Your task to perform on an android device: delete a single message in the gmail app Image 0: 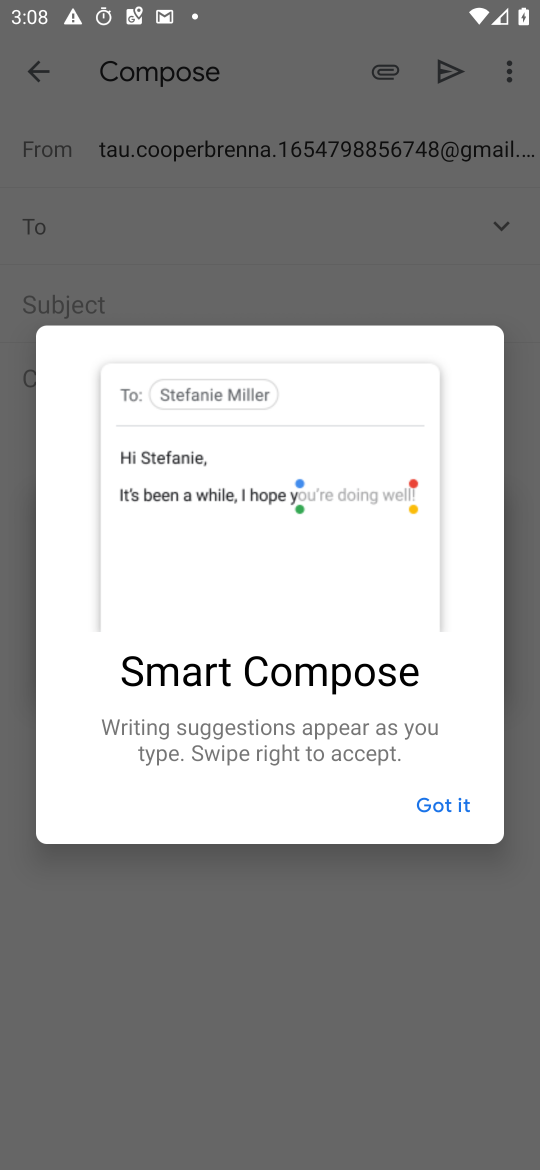
Step 0: press home button
Your task to perform on an android device: delete a single message in the gmail app Image 1: 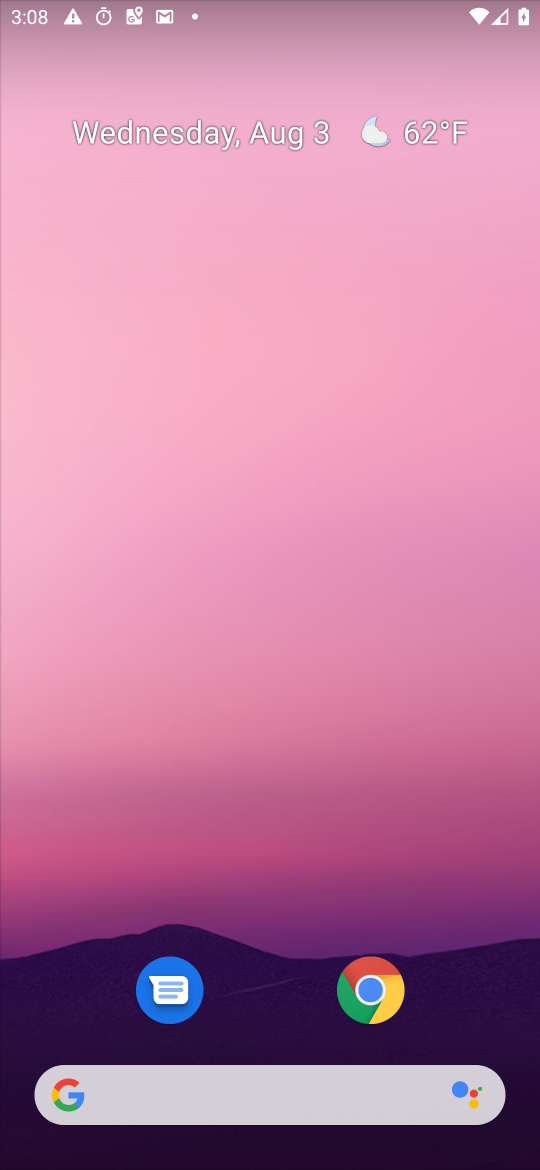
Step 1: drag from (211, 1055) to (224, 431)
Your task to perform on an android device: delete a single message in the gmail app Image 2: 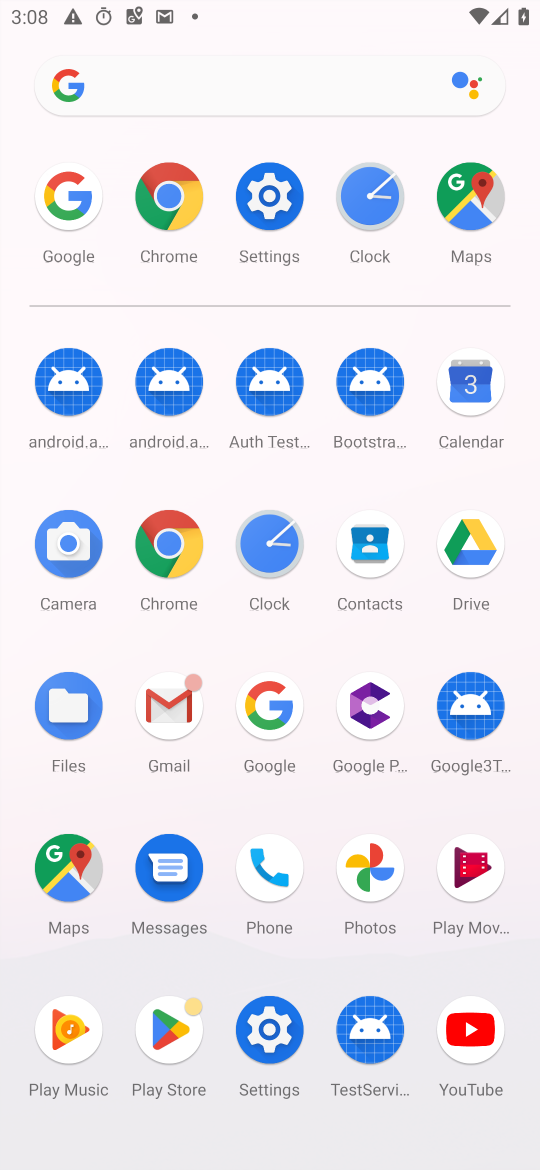
Step 2: click (189, 704)
Your task to perform on an android device: delete a single message in the gmail app Image 3: 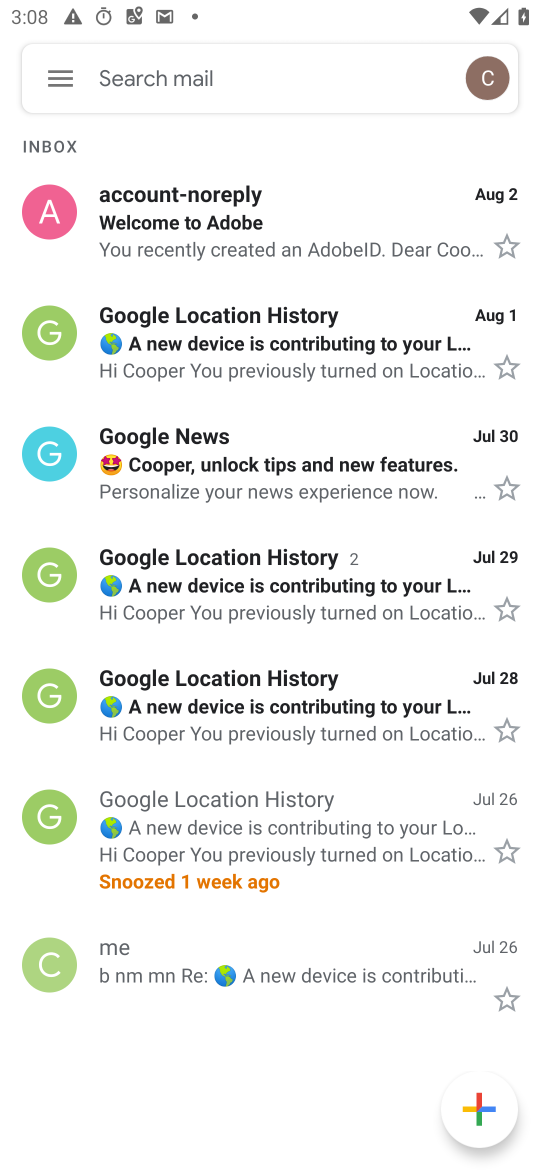
Step 3: click (76, 73)
Your task to perform on an android device: delete a single message in the gmail app Image 4: 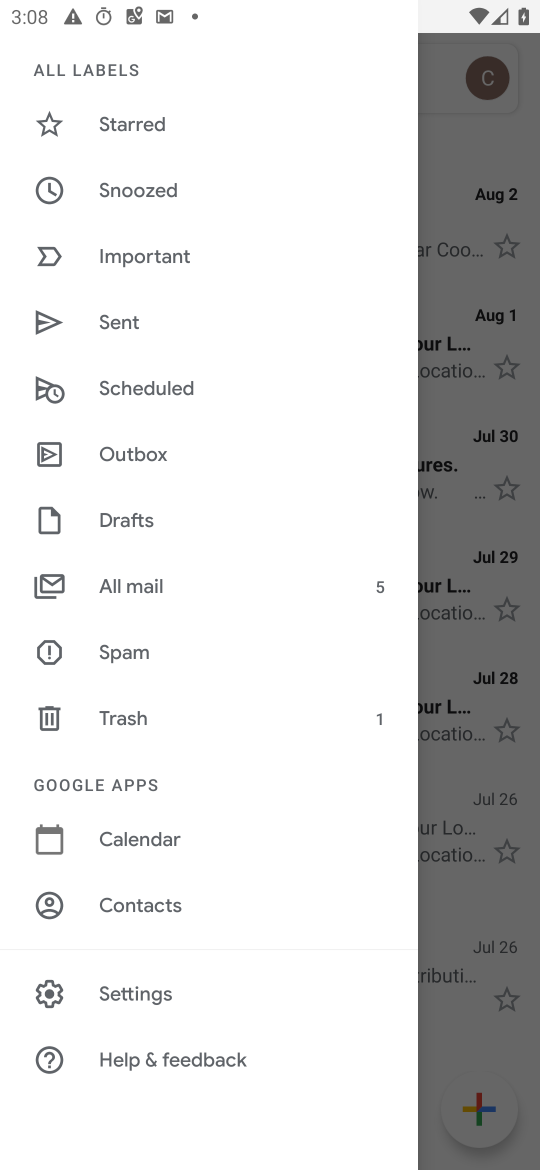
Step 4: click (436, 922)
Your task to perform on an android device: delete a single message in the gmail app Image 5: 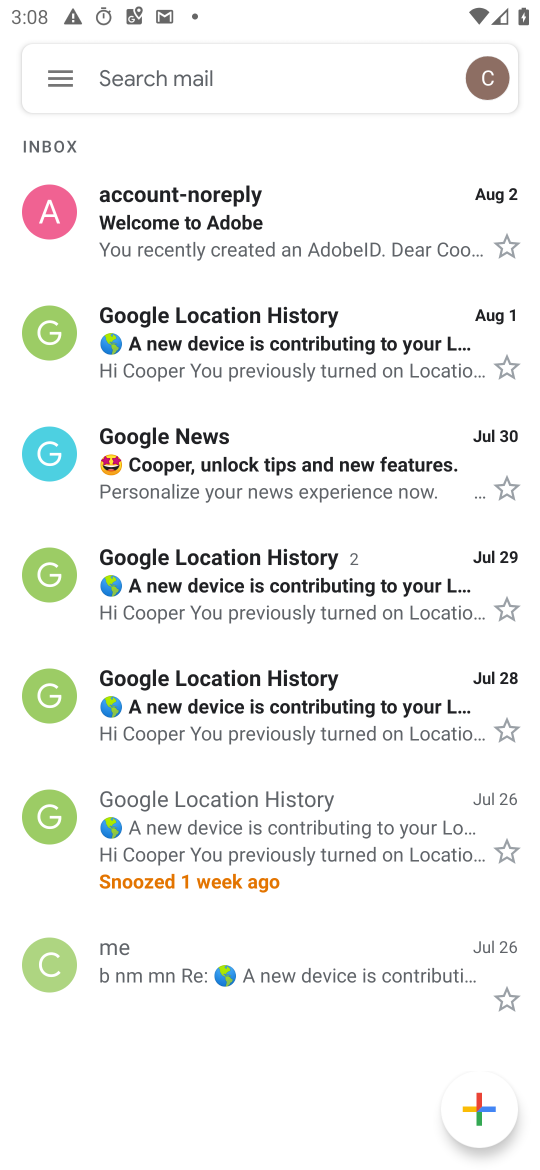
Step 5: click (297, 222)
Your task to perform on an android device: delete a single message in the gmail app Image 6: 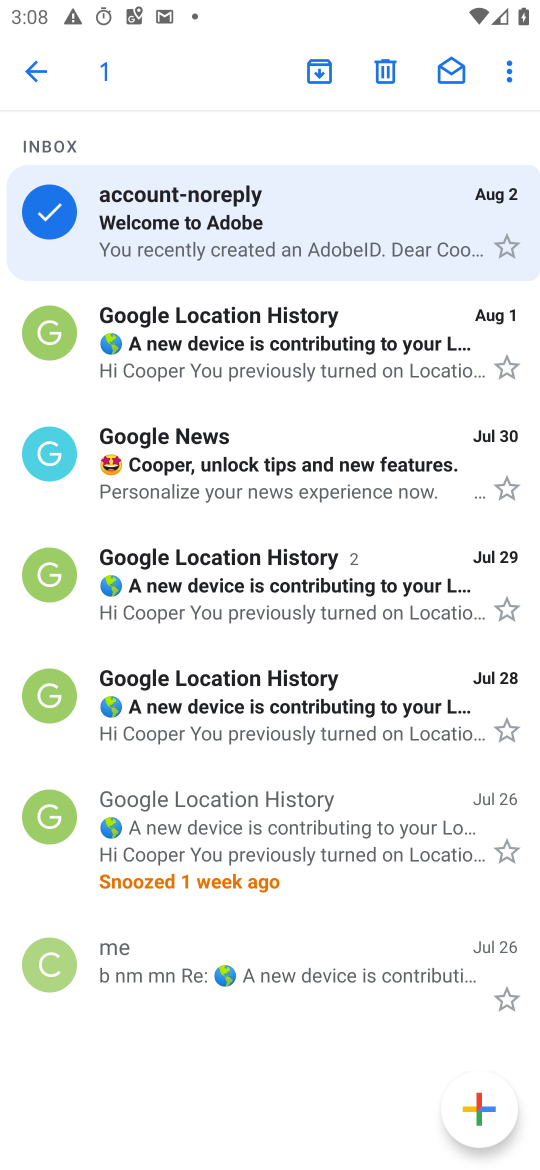
Step 6: click (389, 57)
Your task to perform on an android device: delete a single message in the gmail app Image 7: 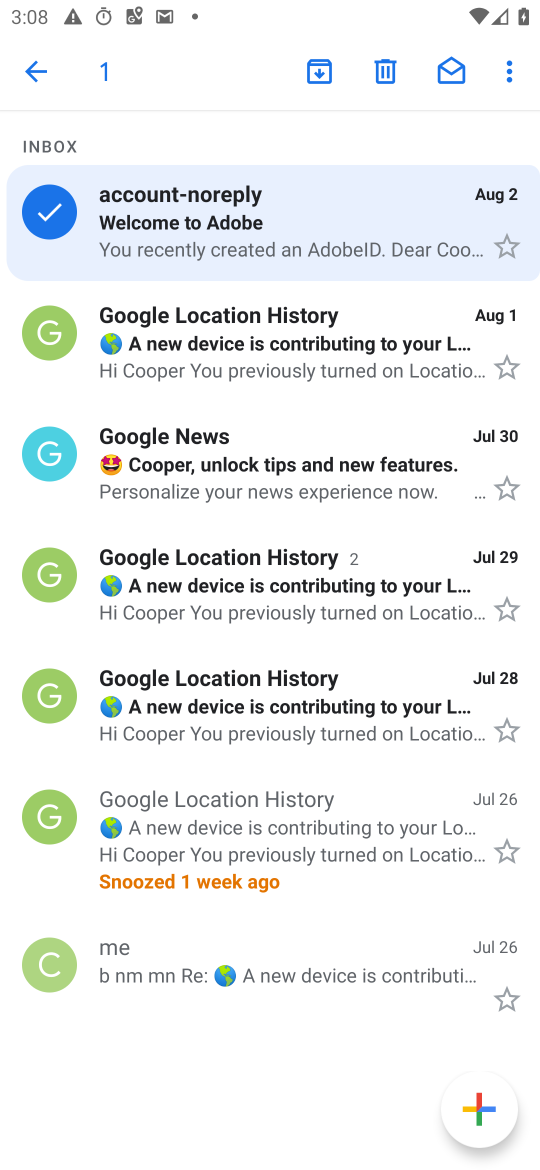
Step 7: click (379, 61)
Your task to perform on an android device: delete a single message in the gmail app Image 8: 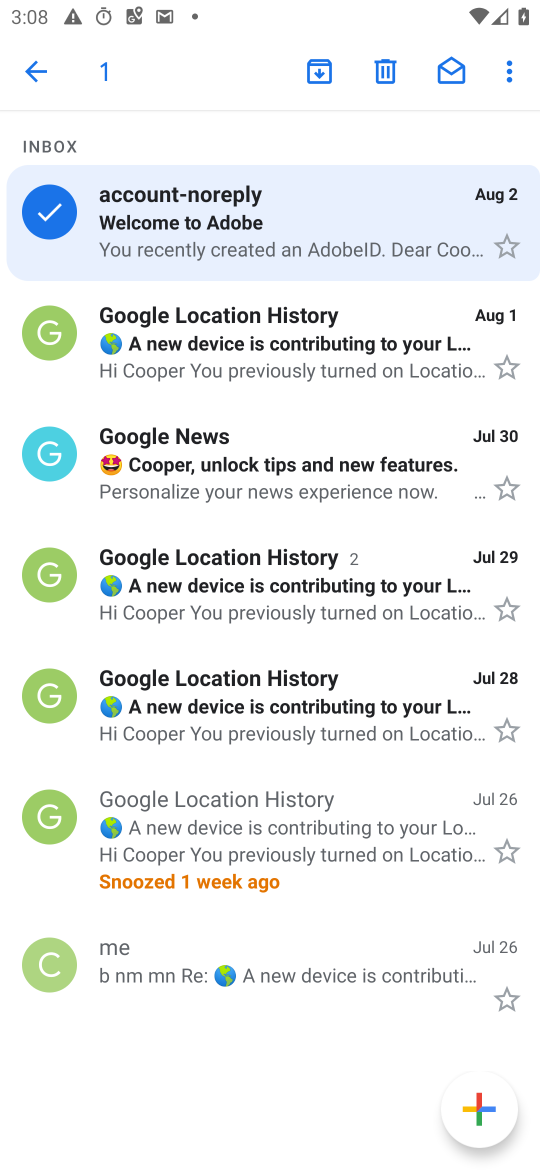
Step 8: click (380, 74)
Your task to perform on an android device: delete a single message in the gmail app Image 9: 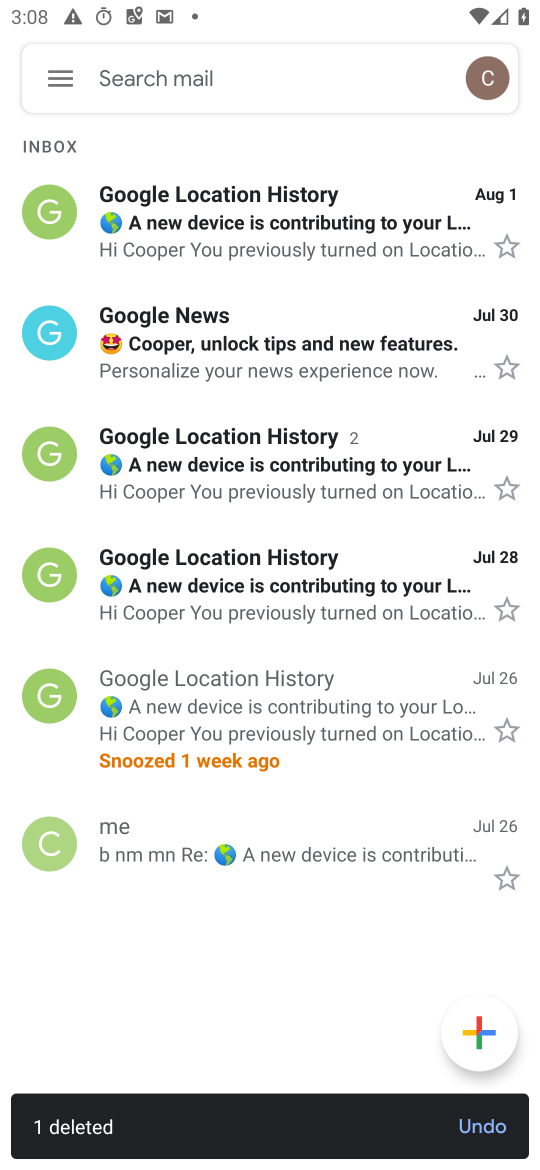
Step 9: task complete